Your task to perform on an android device: open wifi settings Image 0: 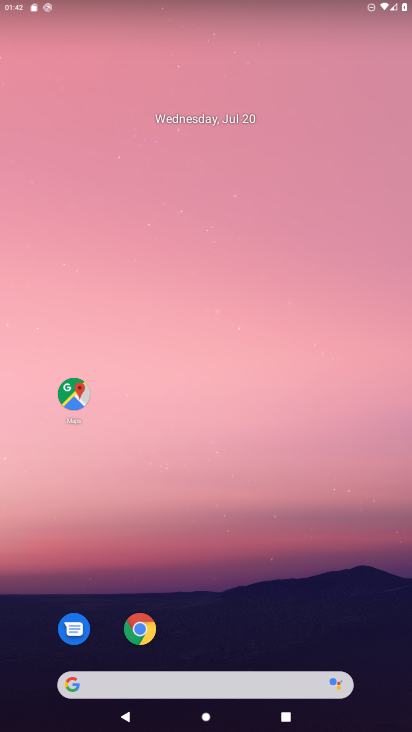
Step 0: drag from (237, 627) to (238, 10)
Your task to perform on an android device: open wifi settings Image 1: 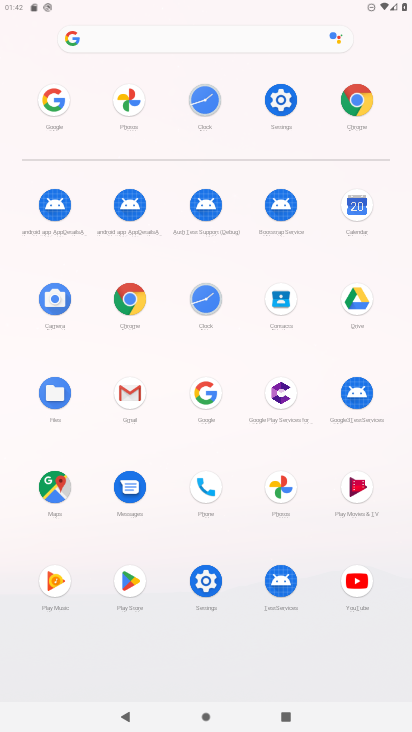
Step 1: click (284, 123)
Your task to perform on an android device: open wifi settings Image 2: 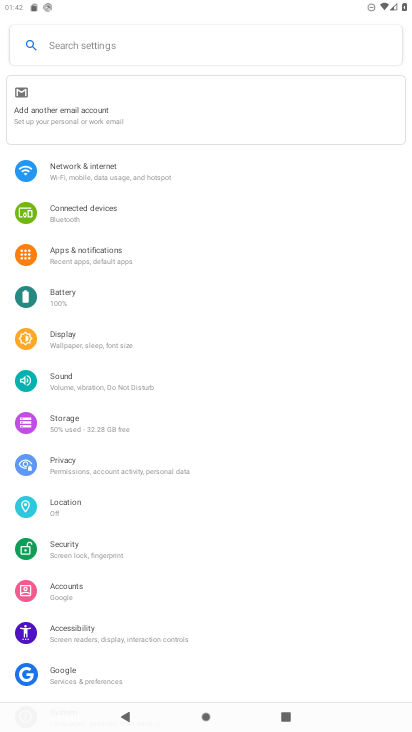
Step 2: click (102, 185)
Your task to perform on an android device: open wifi settings Image 3: 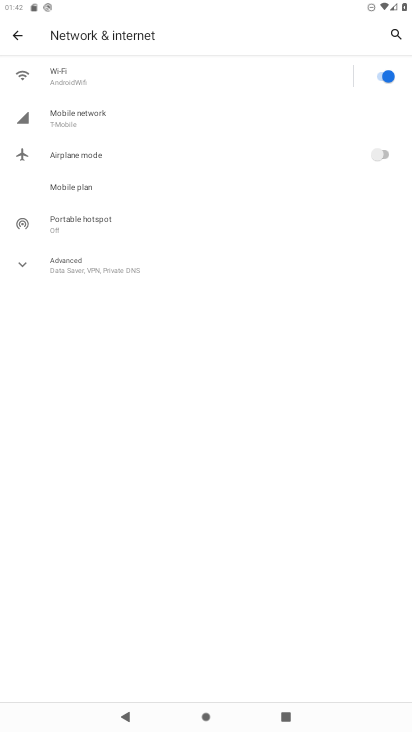
Step 3: click (102, 72)
Your task to perform on an android device: open wifi settings Image 4: 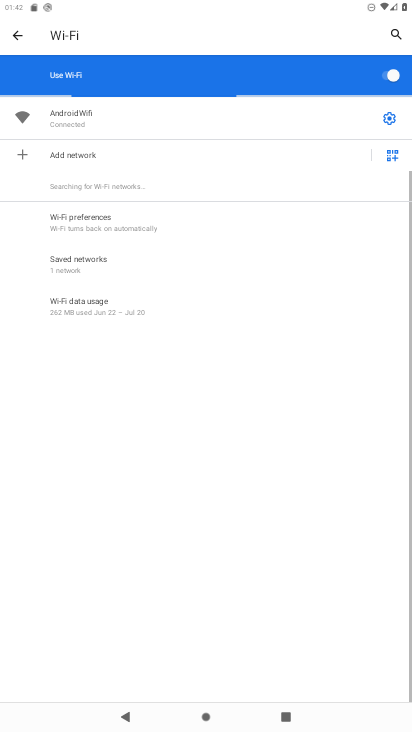
Step 4: task complete